Your task to perform on an android device: uninstall "Lyft - Rideshare, Bikes, Scooters & Transit" Image 0: 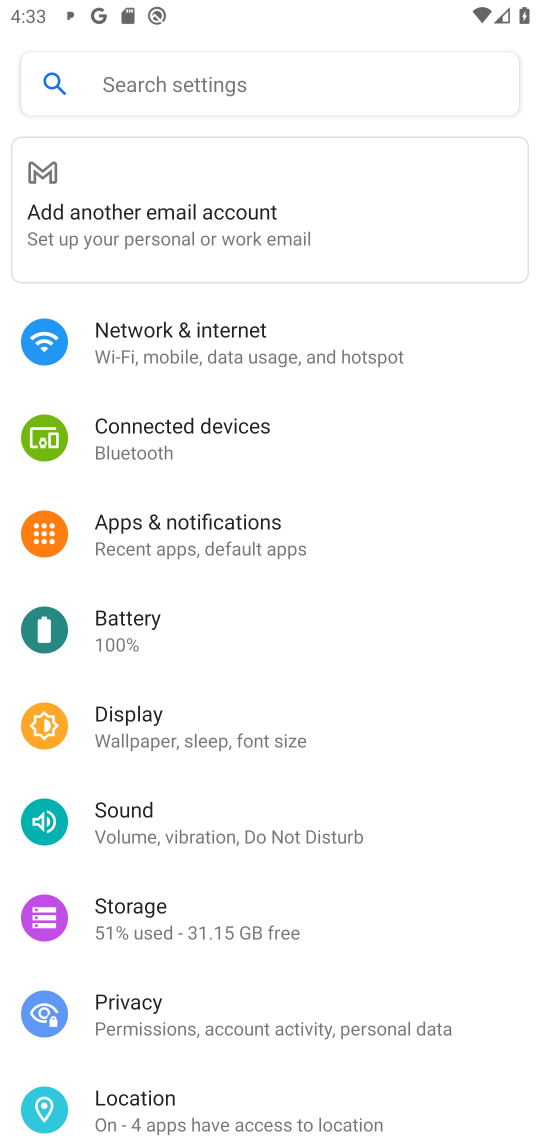
Step 0: press home button
Your task to perform on an android device: uninstall "Lyft - Rideshare, Bikes, Scooters & Transit" Image 1: 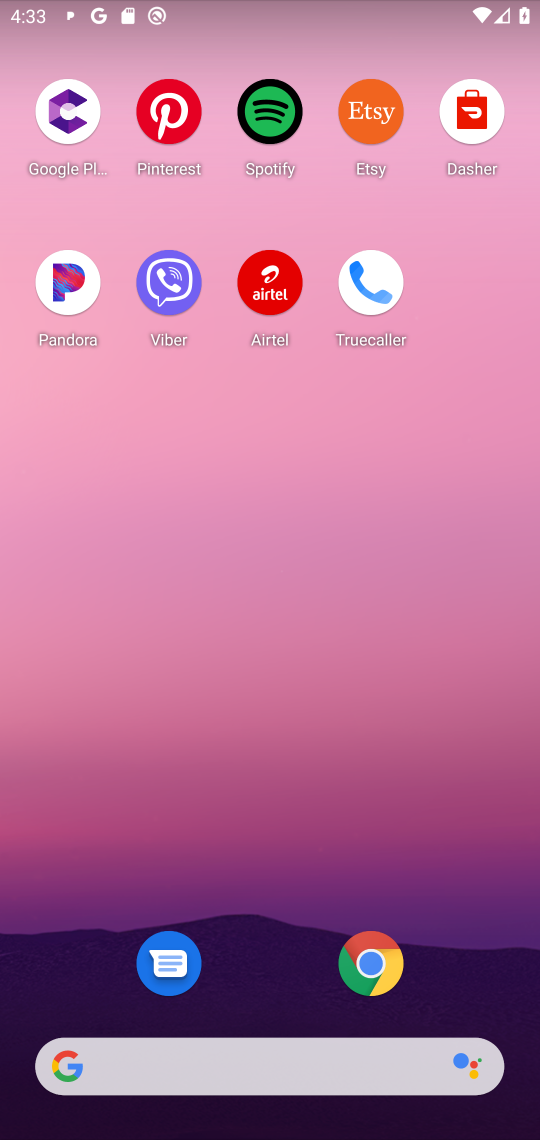
Step 1: drag from (286, 955) to (281, 130)
Your task to perform on an android device: uninstall "Lyft - Rideshare, Bikes, Scooters & Transit" Image 2: 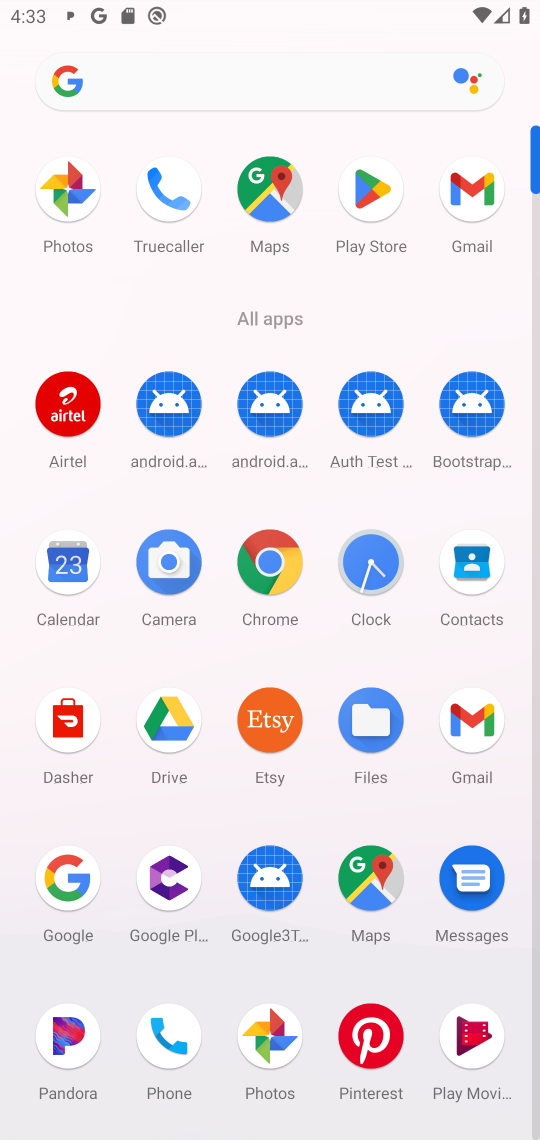
Step 2: click (368, 199)
Your task to perform on an android device: uninstall "Lyft - Rideshare, Bikes, Scooters & Transit" Image 3: 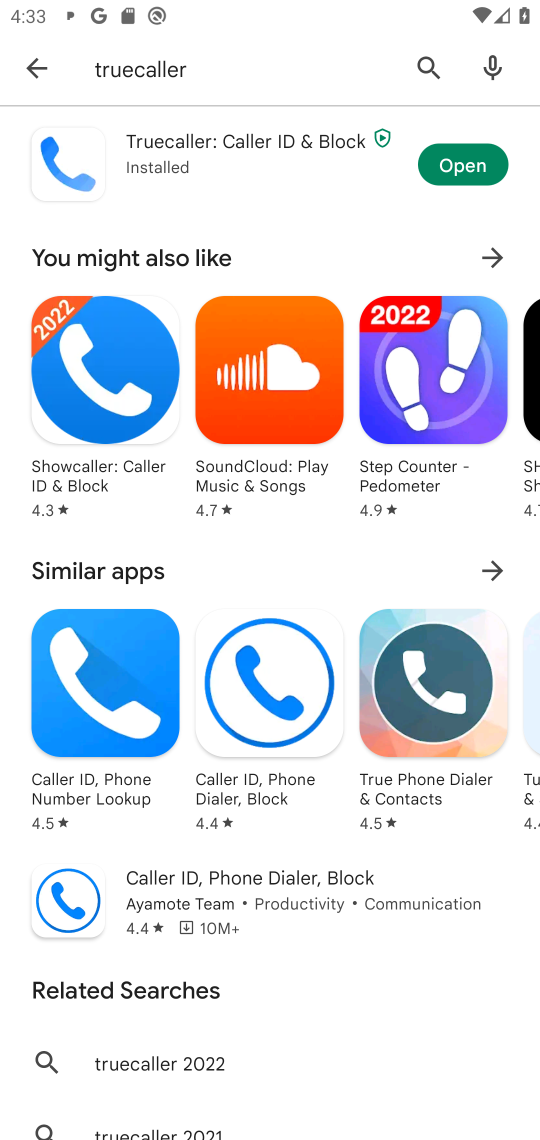
Step 3: click (419, 56)
Your task to perform on an android device: uninstall "Lyft - Rideshare, Bikes, Scooters & Transit" Image 4: 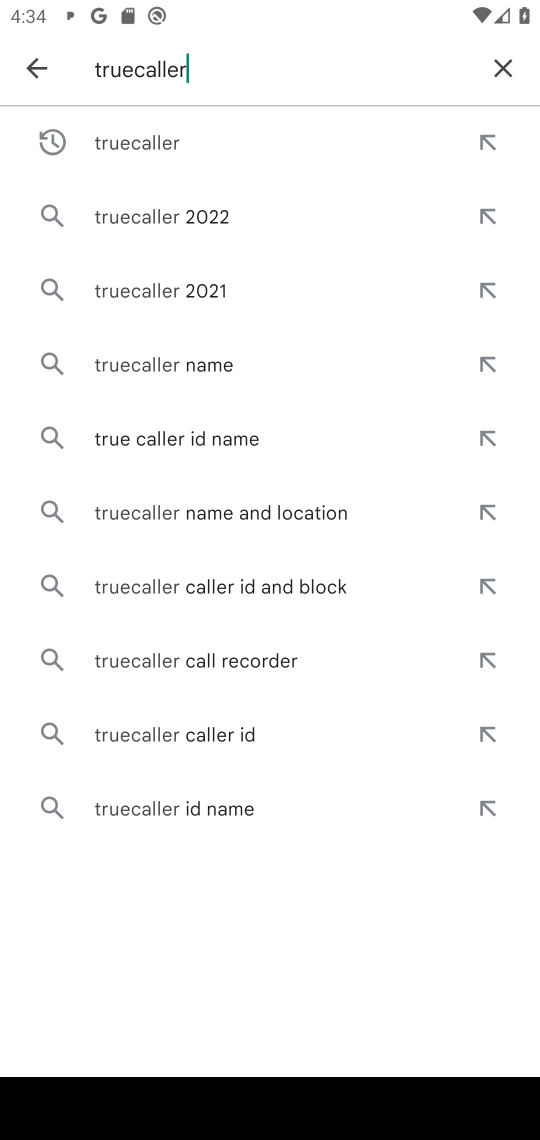
Step 4: click (496, 61)
Your task to perform on an android device: uninstall "Lyft - Rideshare, Bikes, Scooters & Transit" Image 5: 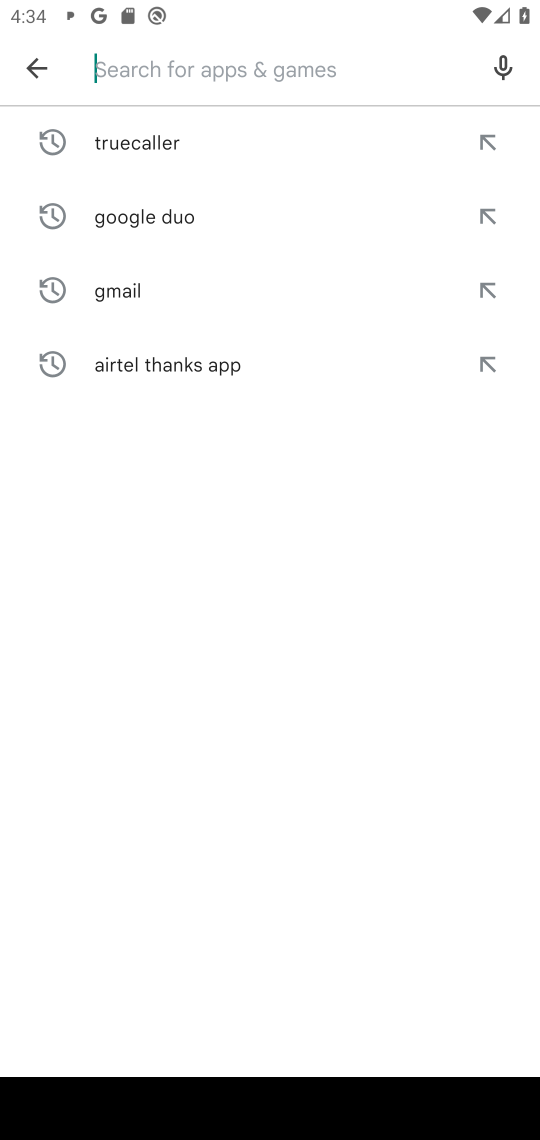
Step 5: type "Lyft"
Your task to perform on an android device: uninstall "Lyft - Rideshare, Bikes, Scooters & Transit" Image 6: 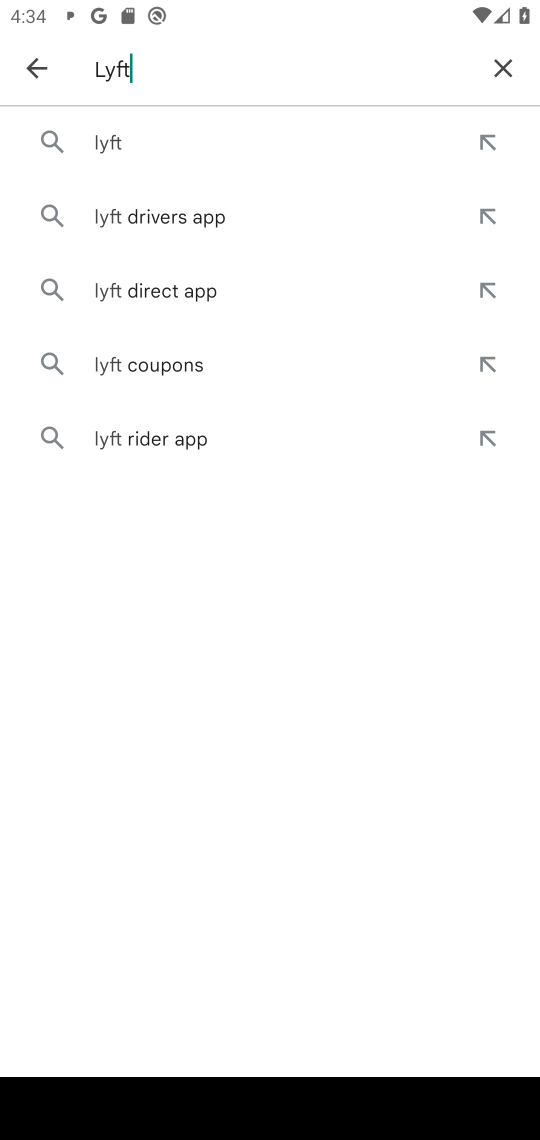
Step 6: click (141, 142)
Your task to perform on an android device: uninstall "Lyft - Rideshare, Bikes, Scooters & Transit" Image 7: 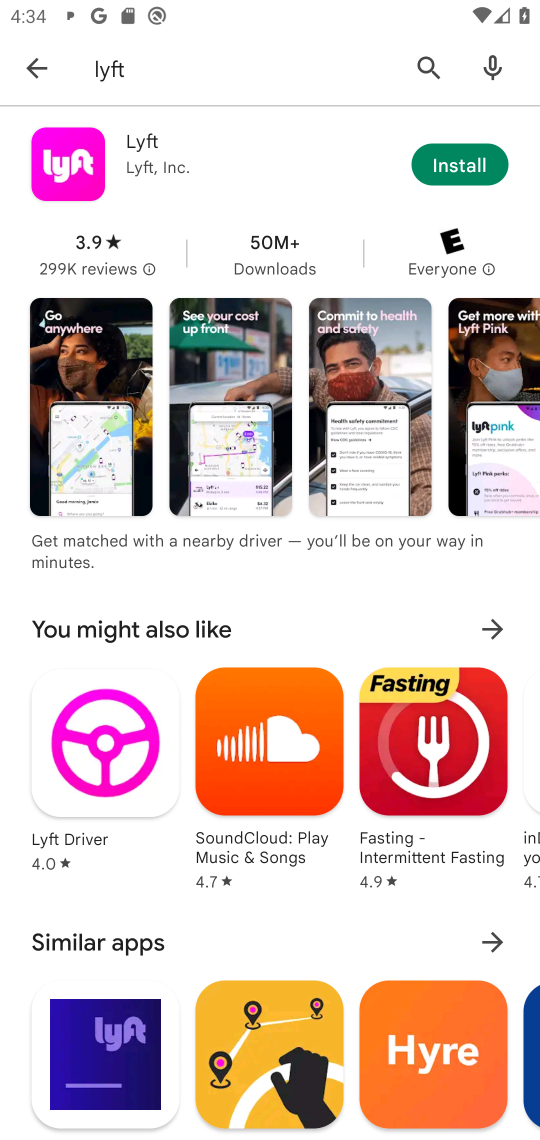
Step 7: task complete